Your task to perform on an android device: turn on the 12-hour format for clock Image 0: 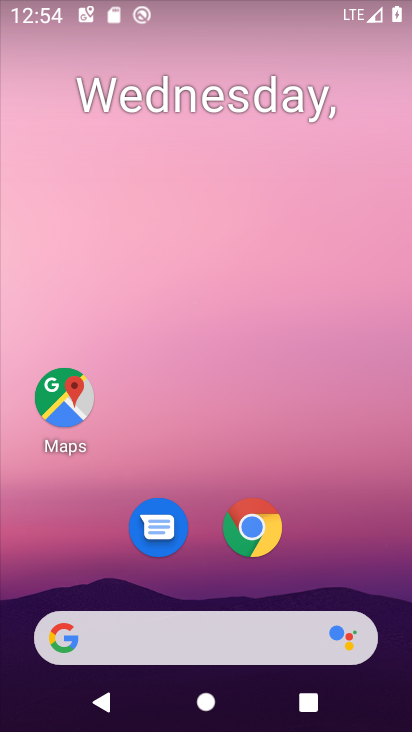
Step 0: drag from (244, 628) to (302, 4)
Your task to perform on an android device: turn on the 12-hour format for clock Image 1: 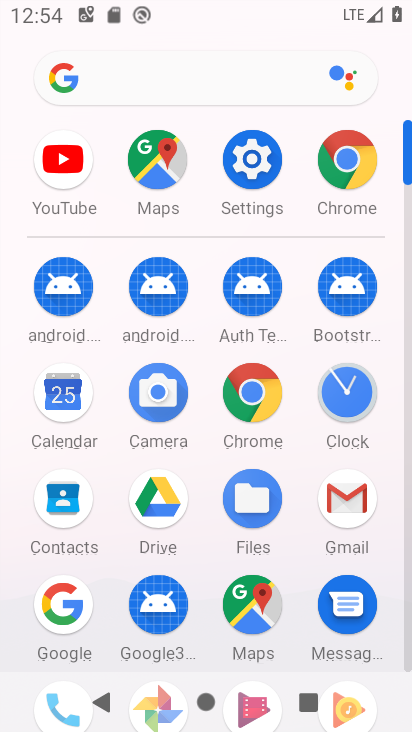
Step 1: click (340, 401)
Your task to perform on an android device: turn on the 12-hour format for clock Image 2: 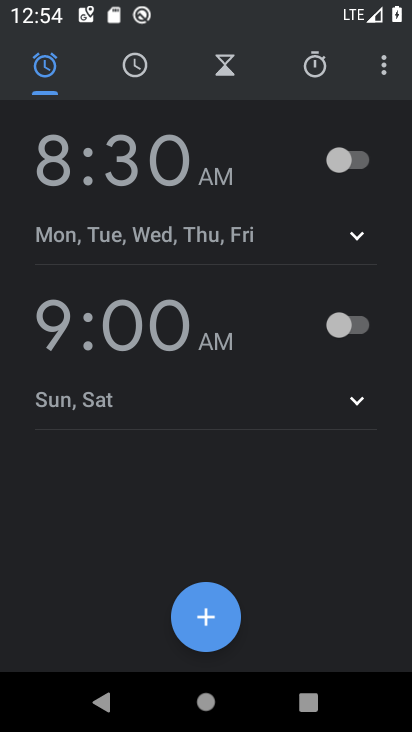
Step 2: click (378, 71)
Your task to perform on an android device: turn on the 12-hour format for clock Image 3: 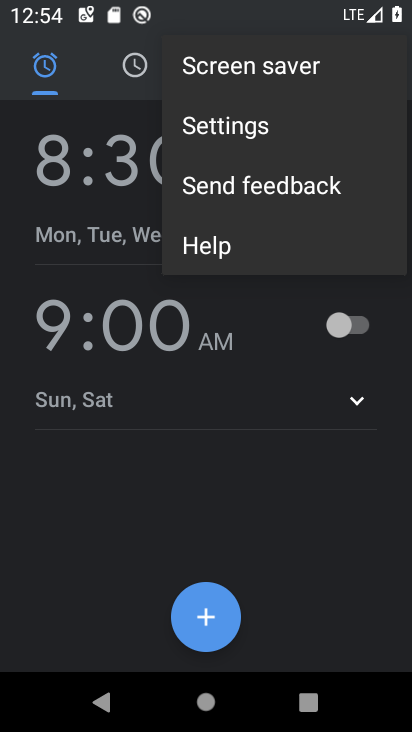
Step 3: click (238, 127)
Your task to perform on an android device: turn on the 12-hour format for clock Image 4: 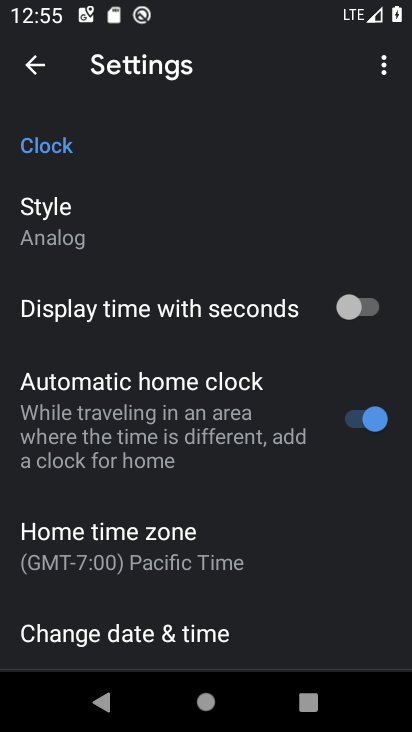
Step 4: drag from (197, 632) to (240, 248)
Your task to perform on an android device: turn on the 12-hour format for clock Image 5: 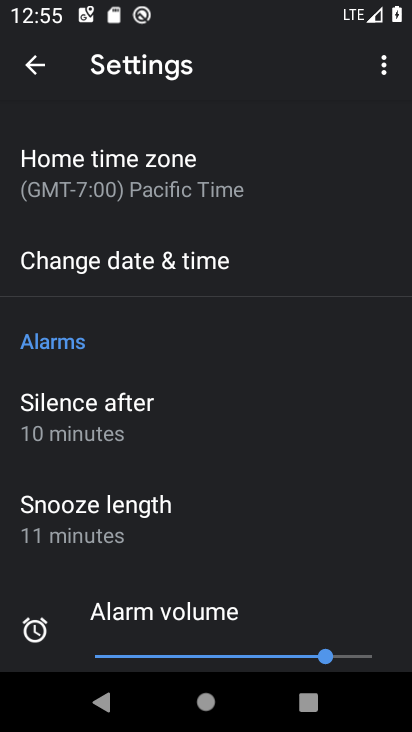
Step 5: click (221, 267)
Your task to perform on an android device: turn on the 12-hour format for clock Image 6: 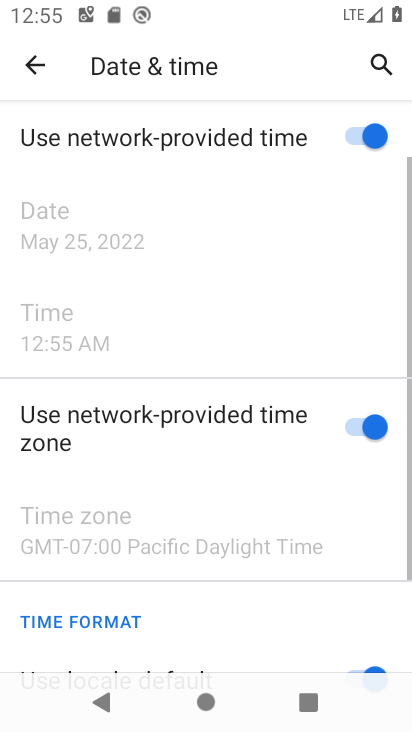
Step 6: drag from (254, 625) to (311, 177)
Your task to perform on an android device: turn on the 12-hour format for clock Image 7: 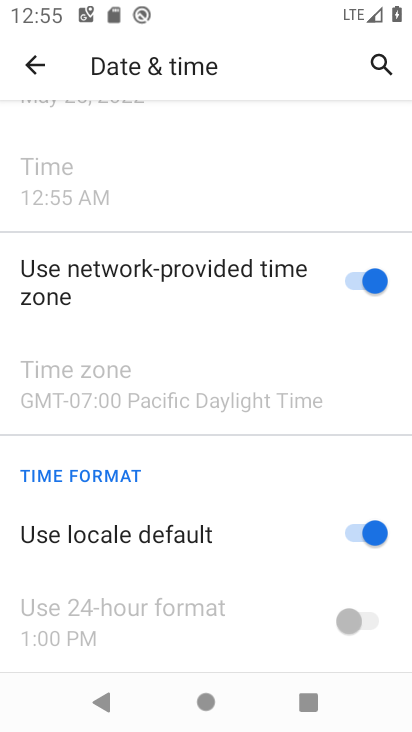
Step 7: click (357, 528)
Your task to perform on an android device: turn on the 12-hour format for clock Image 8: 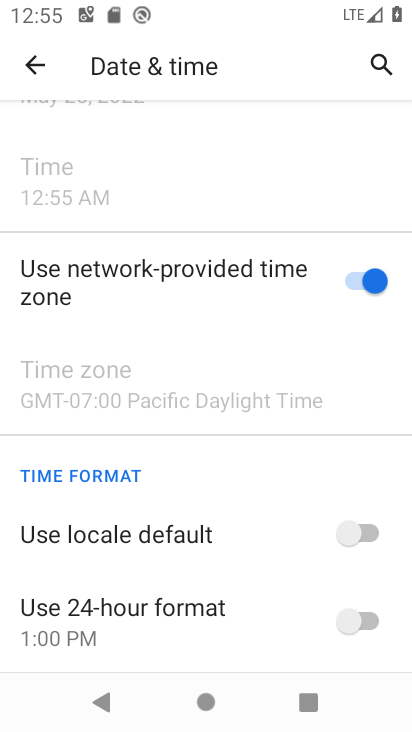
Step 8: task complete